Your task to perform on an android device: Go to Reddit.com Image 0: 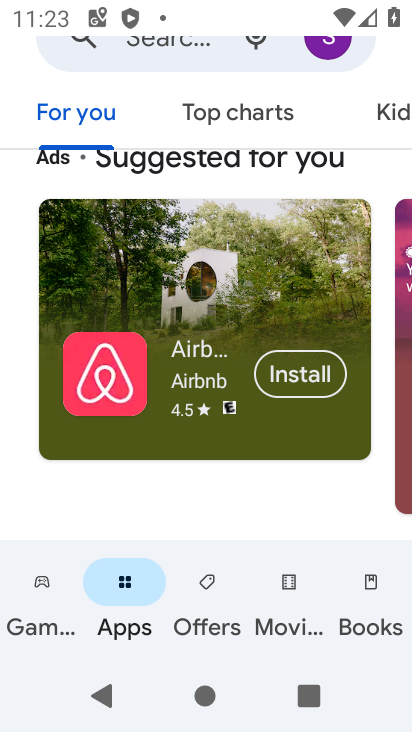
Step 0: press home button
Your task to perform on an android device: Go to Reddit.com Image 1: 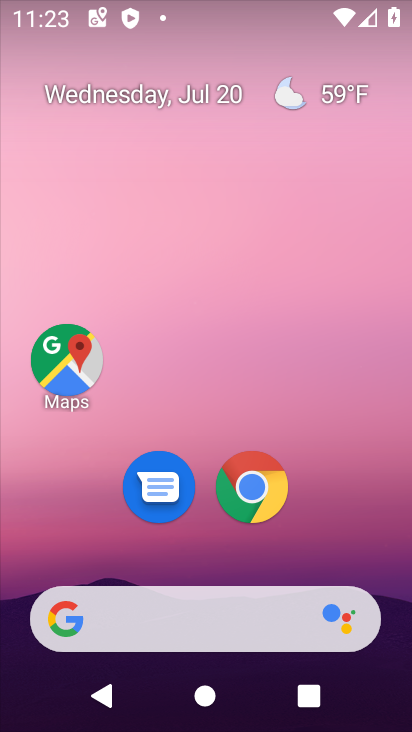
Step 1: drag from (360, 518) to (406, 71)
Your task to perform on an android device: Go to Reddit.com Image 2: 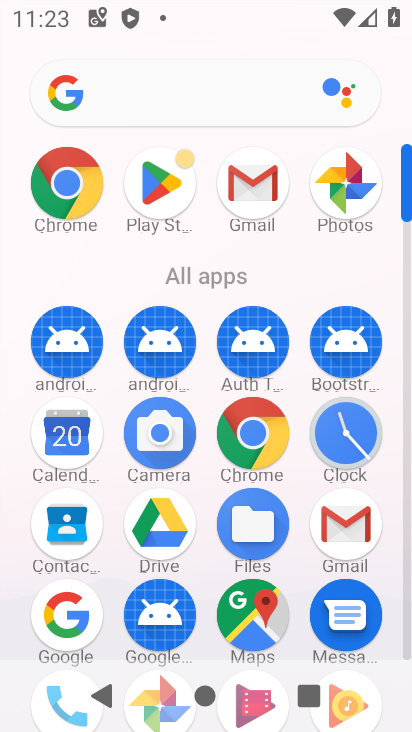
Step 2: click (270, 434)
Your task to perform on an android device: Go to Reddit.com Image 3: 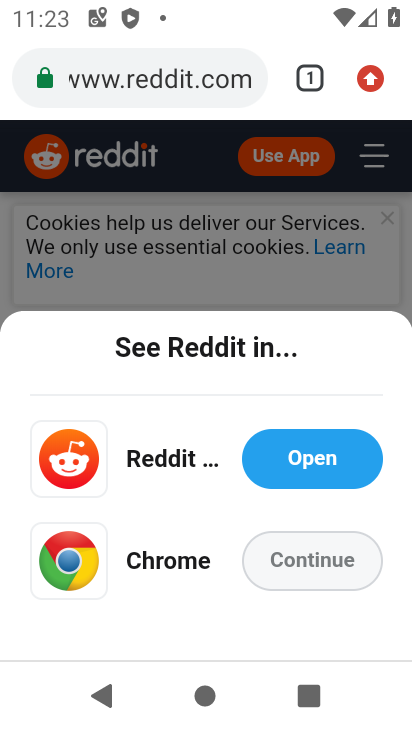
Step 3: task complete